Your task to perform on an android device: open chrome and create a bookmark for the current page Image 0: 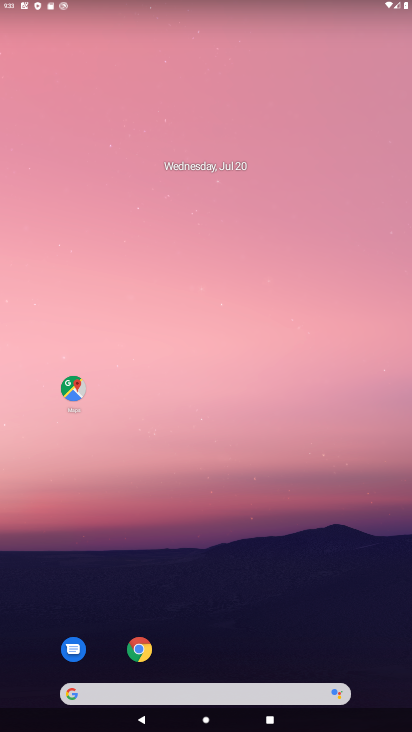
Step 0: click (139, 655)
Your task to perform on an android device: open chrome and create a bookmark for the current page Image 1: 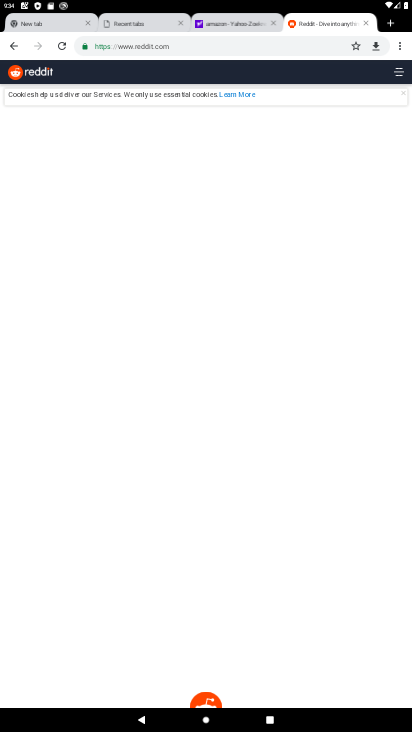
Step 1: click (347, 40)
Your task to perform on an android device: open chrome and create a bookmark for the current page Image 2: 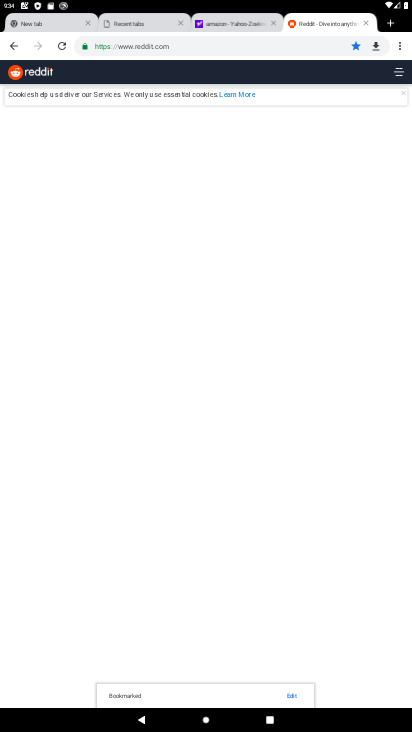
Step 2: task complete